Your task to perform on an android device: turn off smart reply in the gmail app Image 0: 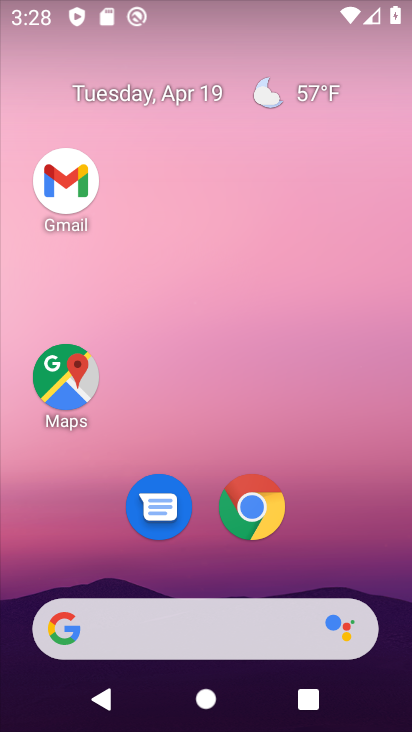
Step 0: drag from (271, 561) to (363, 143)
Your task to perform on an android device: turn off smart reply in the gmail app Image 1: 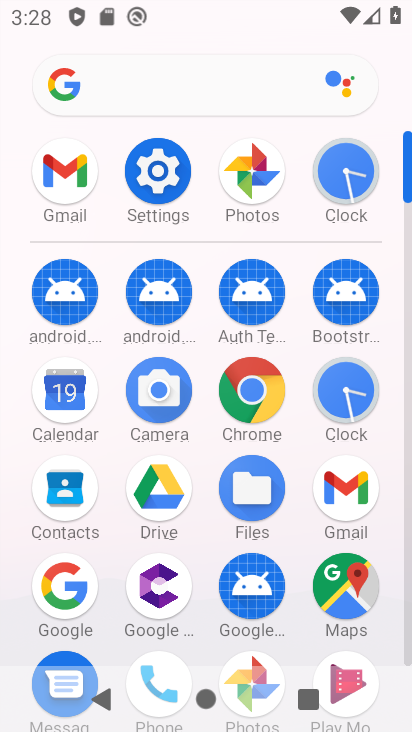
Step 1: click (66, 193)
Your task to perform on an android device: turn off smart reply in the gmail app Image 2: 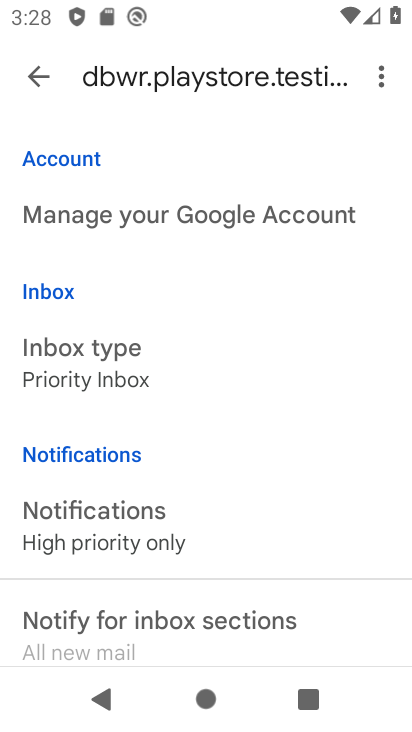
Step 2: drag from (210, 569) to (292, 147)
Your task to perform on an android device: turn off smart reply in the gmail app Image 3: 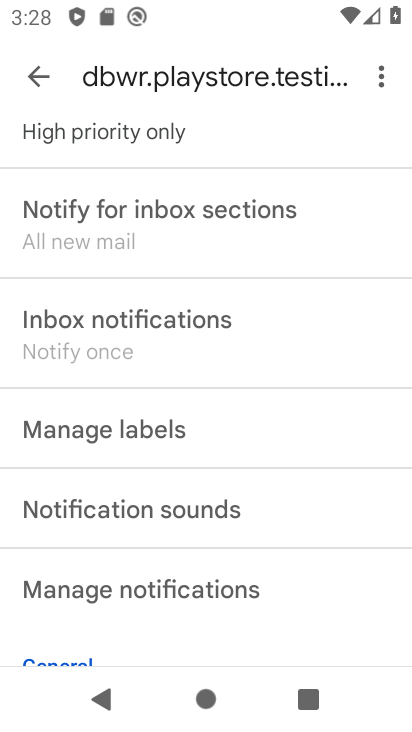
Step 3: drag from (272, 531) to (324, 128)
Your task to perform on an android device: turn off smart reply in the gmail app Image 4: 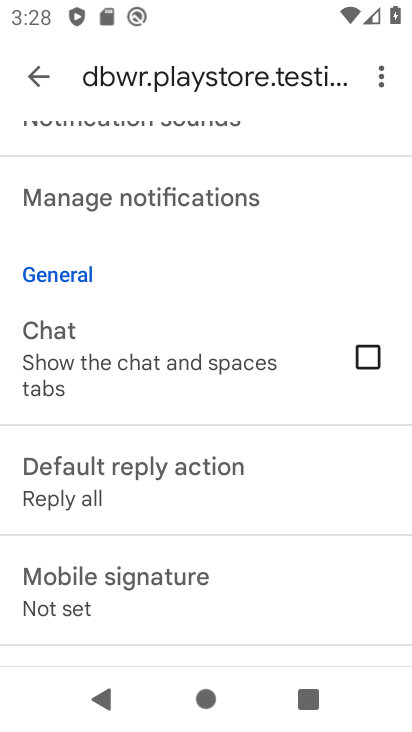
Step 4: drag from (267, 574) to (305, 216)
Your task to perform on an android device: turn off smart reply in the gmail app Image 5: 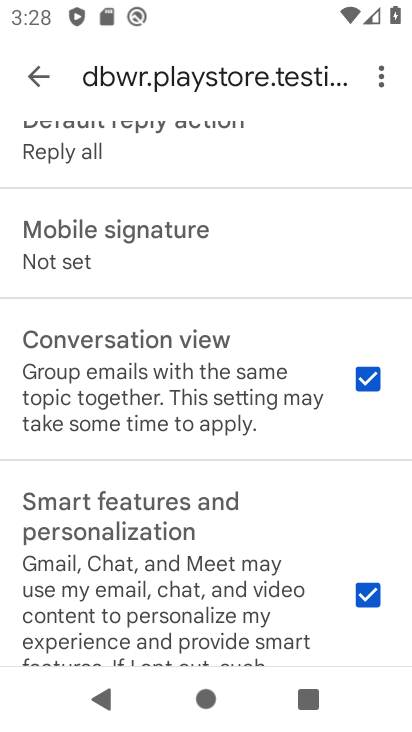
Step 5: drag from (287, 624) to (345, 211)
Your task to perform on an android device: turn off smart reply in the gmail app Image 6: 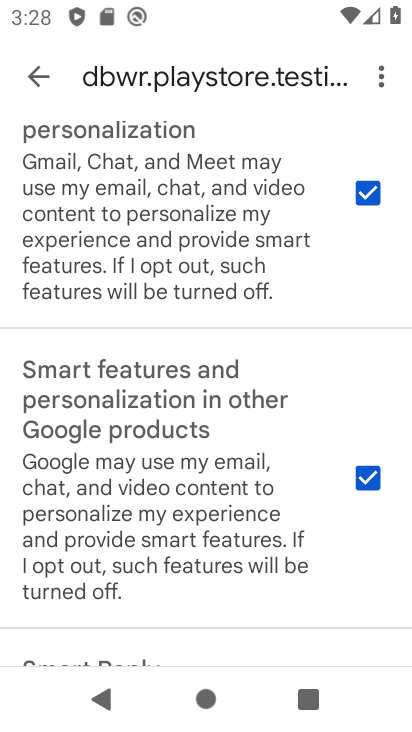
Step 6: drag from (265, 589) to (255, 178)
Your task to perform on an android device: turn off smart reply in the gmail app Image 7: 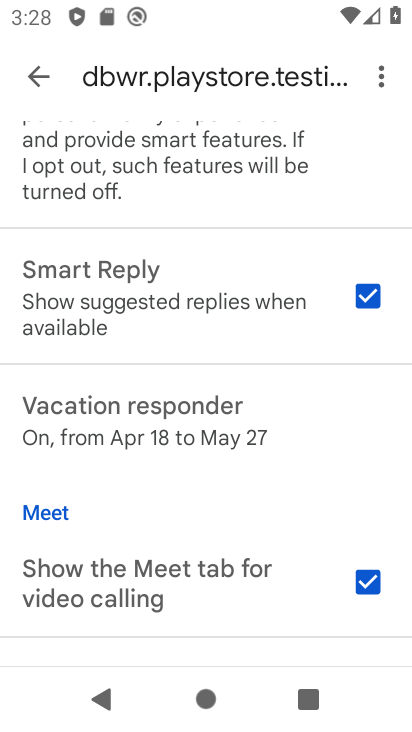
Step 7: click (357, 298)
Your task to perform on an android device: turn off smart reply in the gmail app Image 8: 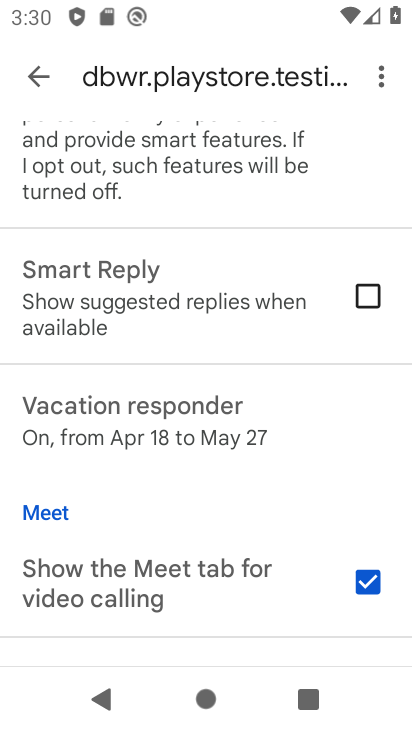
Step 8: task complete